Your task to perform on an android device: What's the weather? Image 0: 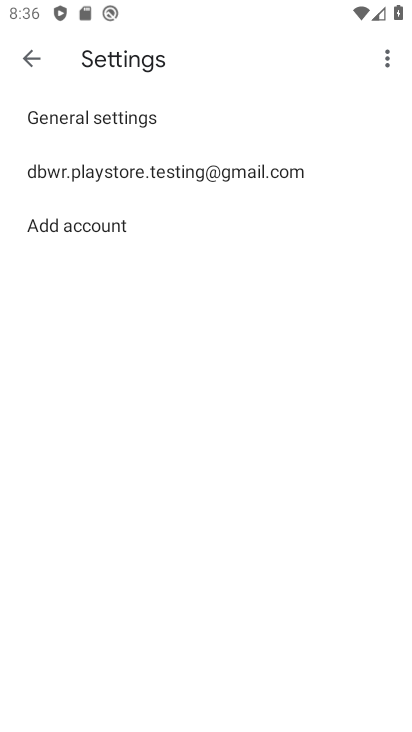
Step 0: press home button
Your task to perform on an android device: What's the weather? Image 1: 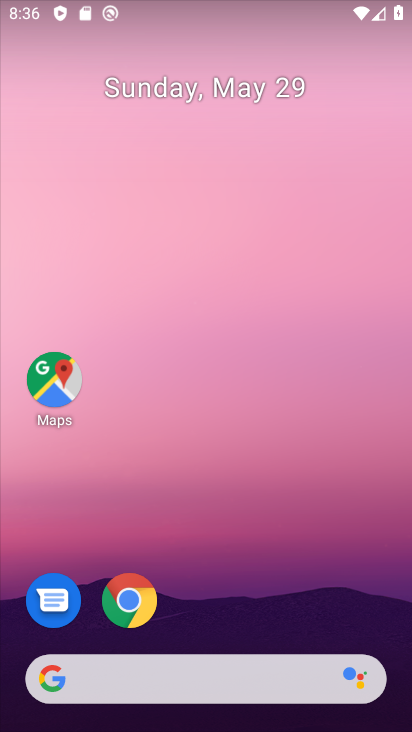
Step 1: drag from (221, 675) to (204, 27)
Your task to perform on an android device: What's the weather? Image 2: 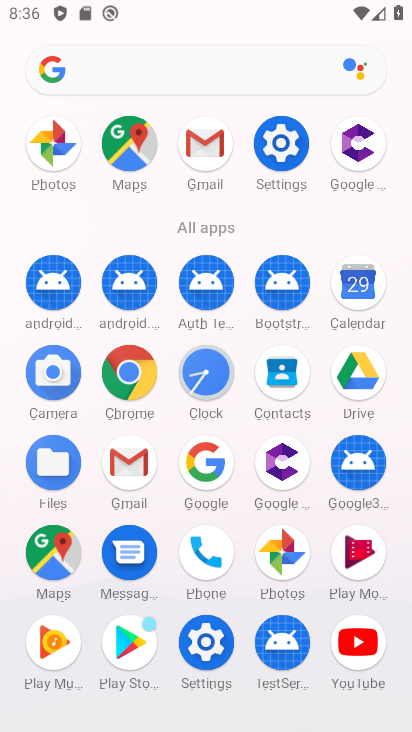
Step 2: click (210, 456)
Your task to perform on an android device: What's the weather? Image 3: 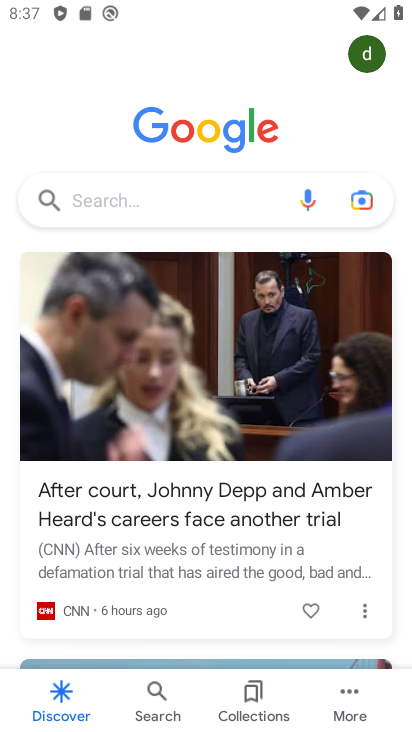
Step 3: click (167, 198)
Your task to perform on an android device: What's the weather? Image 4: 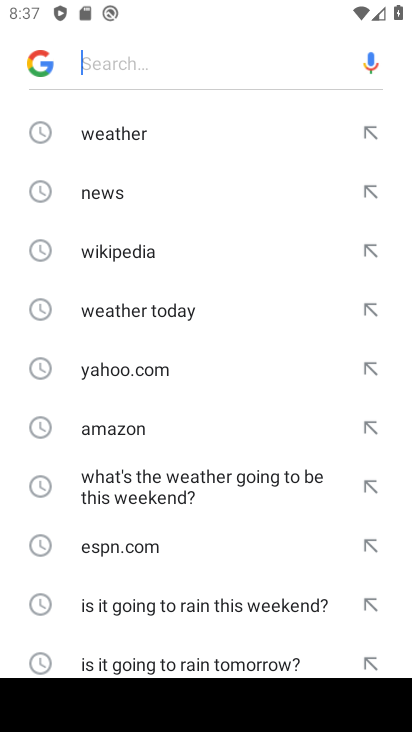
Step 4: click (118, 132)
Your task to perform on an android device: What's the weather? Image 5: 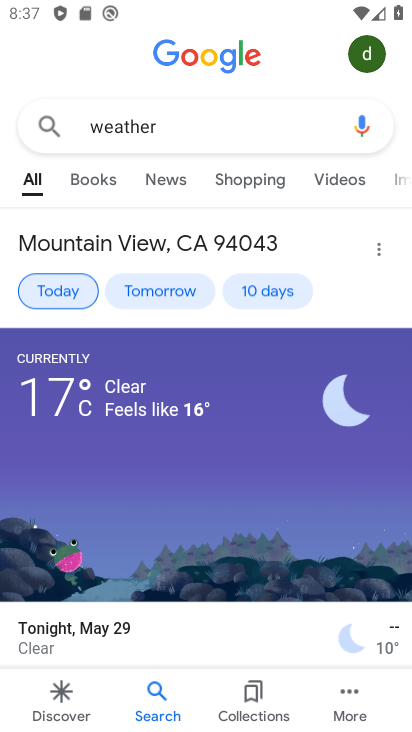
Step 5: task complete